Your task to perform on an android device: turn on javascript in the chrome app Image 0: 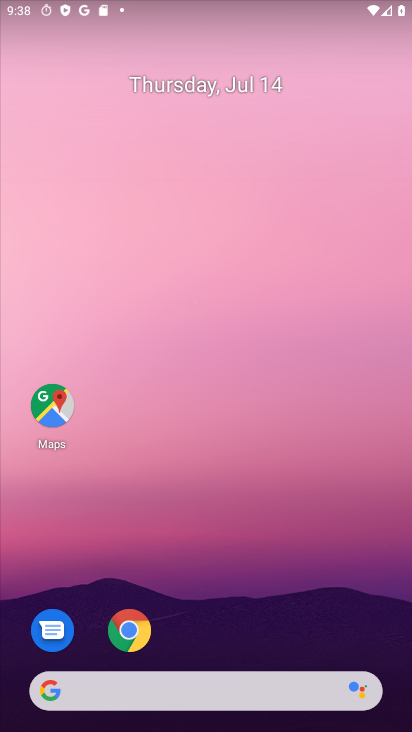
Step 0: click (126, 640)
Your task to perform on an android device: turn on javascript in the chrome app Image 1: 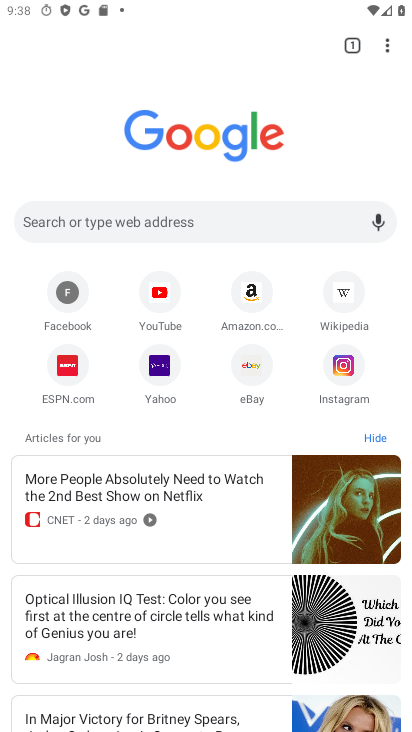
Step 1: click (388, 45)
Your task to perform on an android device: turn on javascript in the chrome app Image 2: 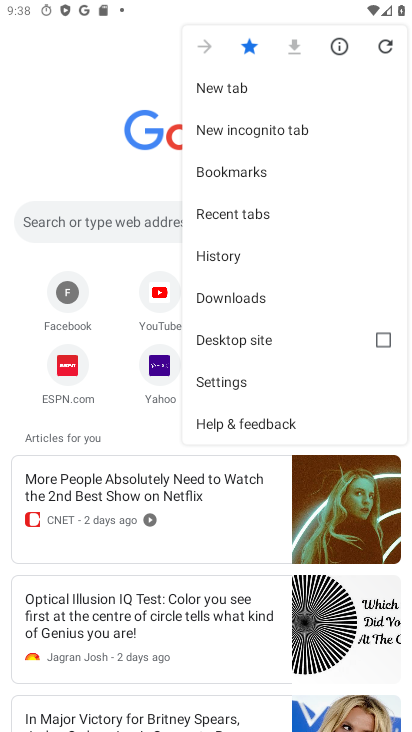
Step 2: click (218, 387)
Your task to perform on an android device: turn on javascript in the chrome app Image 3: 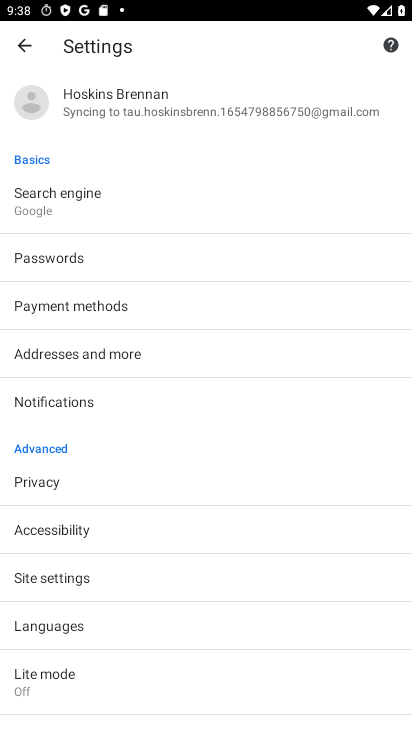
Step 3: click (35, 569)
Your task to perform on an android device: turn on javascript in the chrome app Image 4: 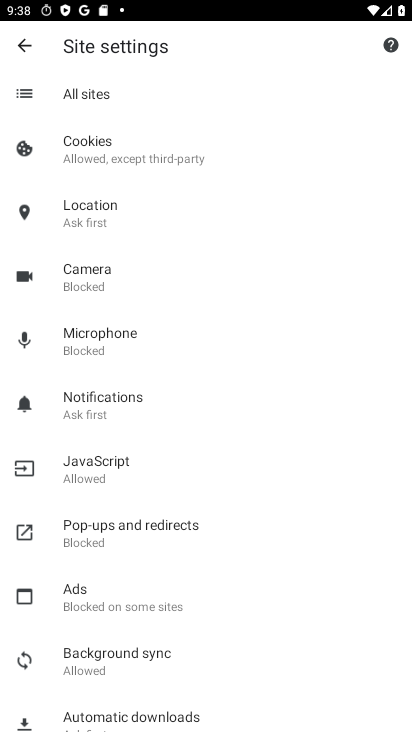
Step 4: click (85, 476)
Your task to perform on an android device: turn on javascript in the chrome app Image 5: 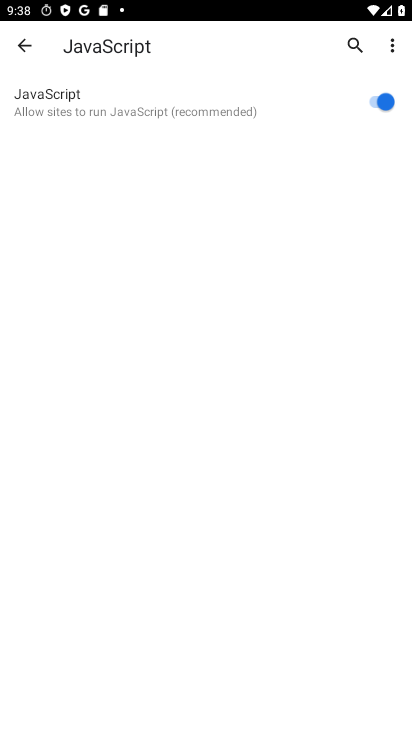
Step 5: task complete